Your task to perform on an android device: How do I get to the nearest Sprint Store? Image 0: 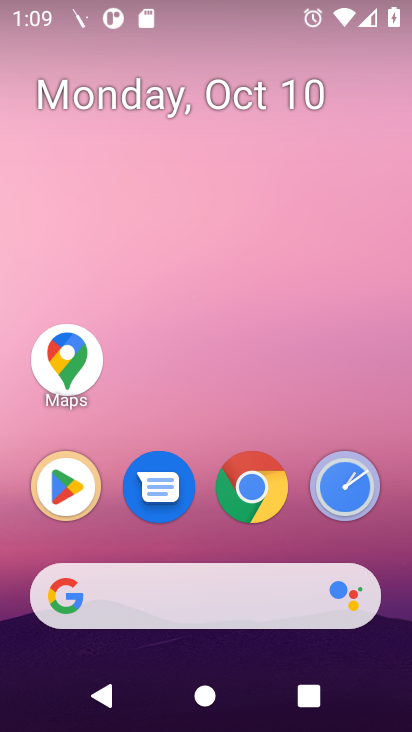
Step 0: drag from (297, 354) to (306, 228)
Your task to perform on an android device: How do I get to the nearest Sprint Store? Image 1: 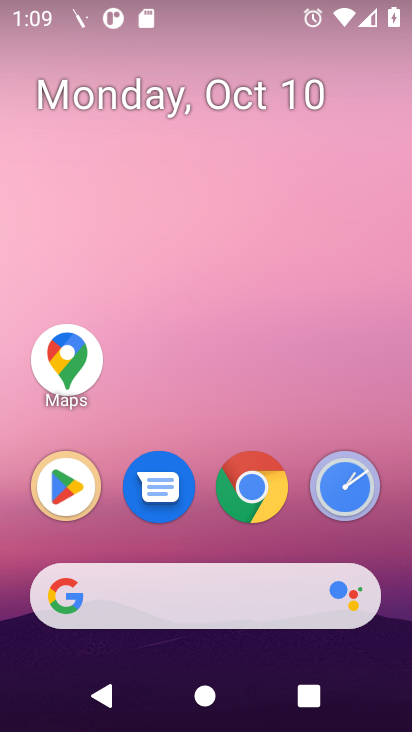
Step 1: click (259, 493)
Your task to perform on an android device: How do I get to the nearest Sprint Store? Image 2: 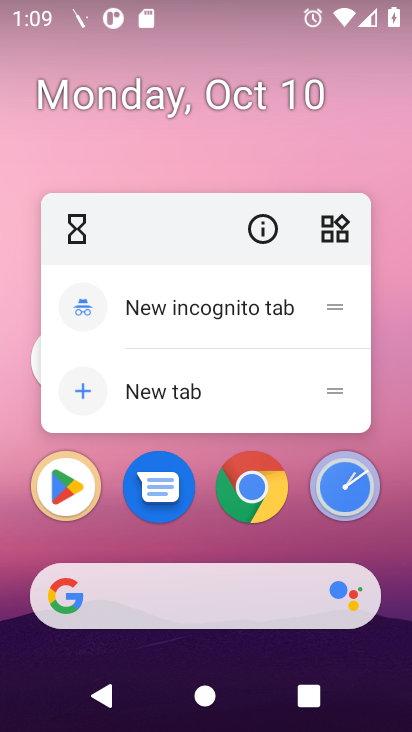
Step 2: click (254, 507)
Your task to perform on an android device: How do I get to the nearest Sprint Store? Image 3: 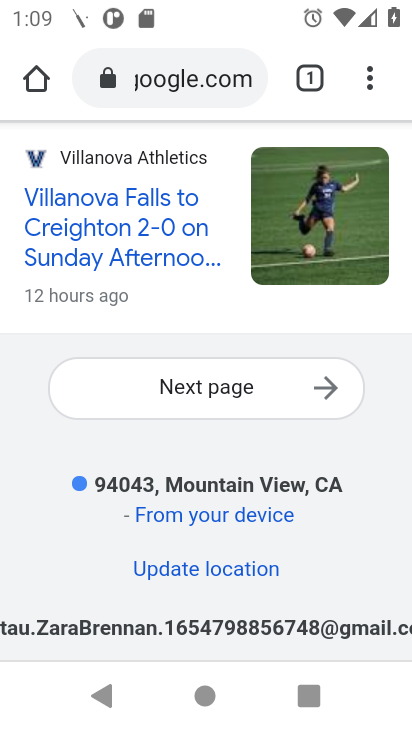
Step 3: click (200, 72)
Your task to perform on an android device: How do I get to the nearest Sprint Store? Image 4: 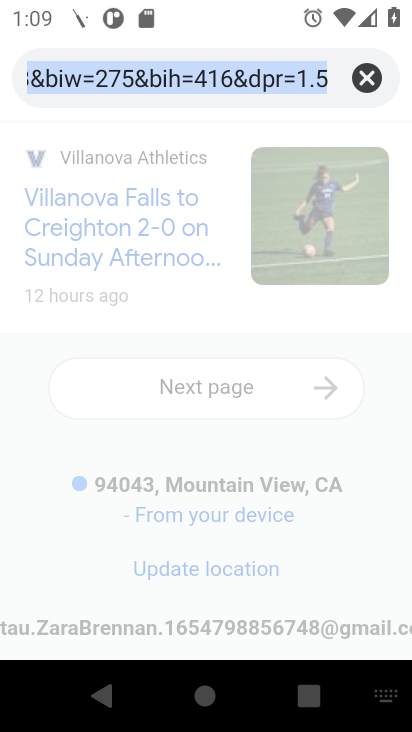
Step 4: type "sprint store"
Your task to perform on an android device: How do I get to the nearest Sprint Store? Image 5: 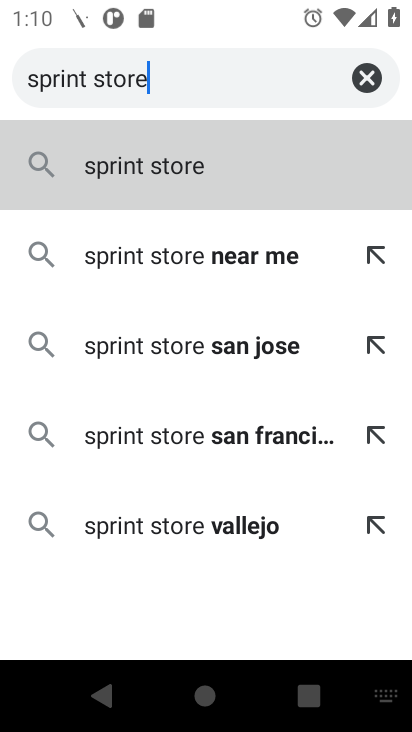
Step 5: click (225, 160)
Your task to perform on an android device: How do I get to the nearest Sprint Store? Image 6: 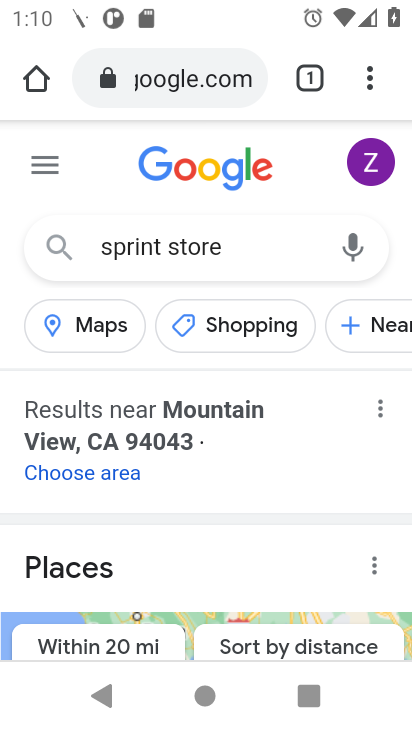
Step 6: drag from (248, 496) to (249, 211)
Your task to perform on an android device: How do I get to the nearest Sprint Store? Image 7: 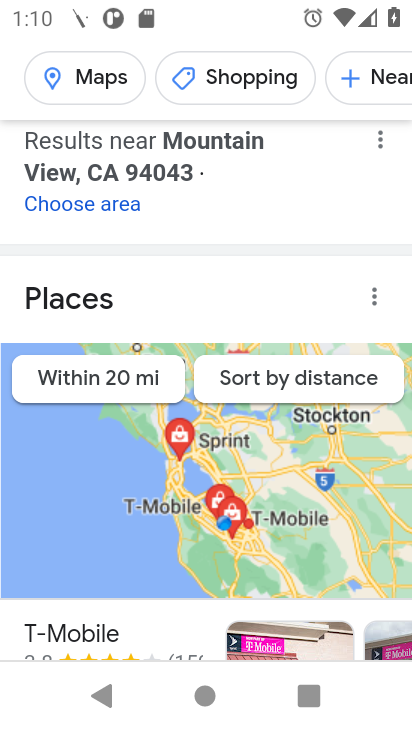
Step 7: drag from (270, 605) to (276, 153)
Your task to perform on an android device: How do I get to the nearest Sprint Store? Image 8: 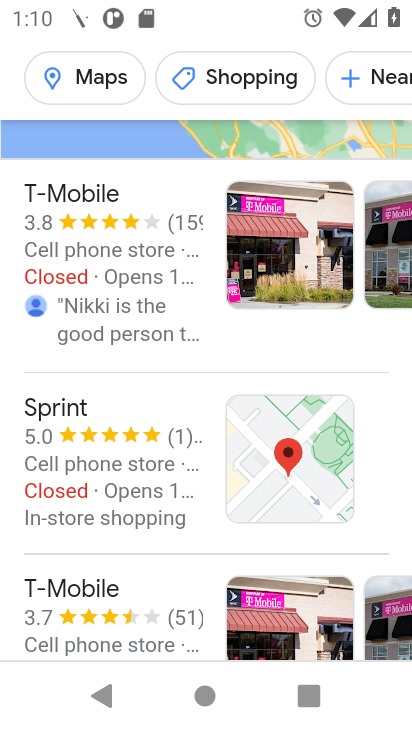
Step 8: drag from (250, 457) to (250, 170)
Your task to perform on an android device: How do I get to the nearest Sprint Store? Image 9: 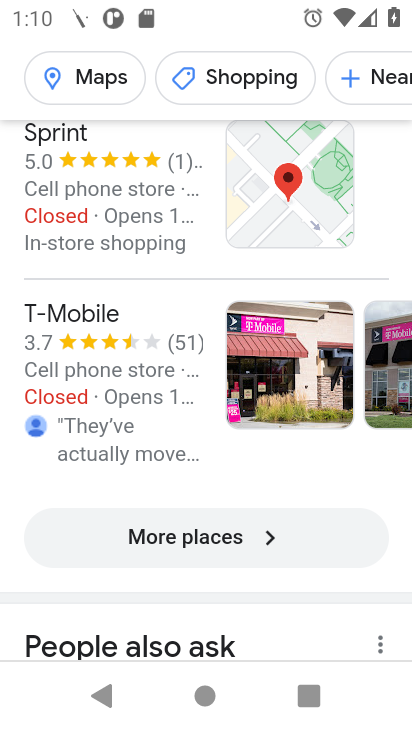
Step 9: drag from (317, 495) to (317, 190)
Your task to perform on an android device: How do I get to the nearest Sprint Store? Image 10: 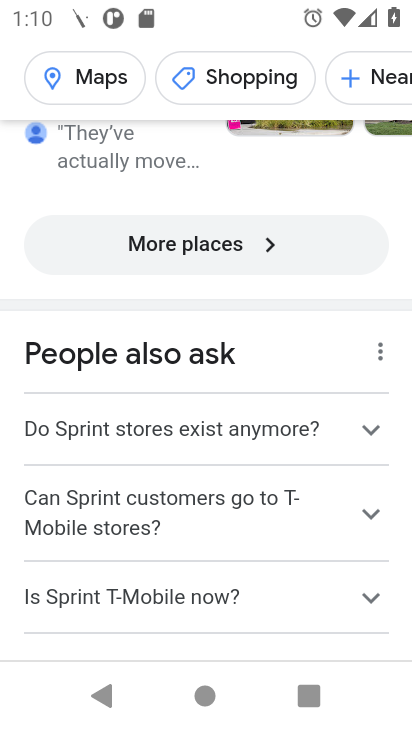
Step 10: drag from (292, 484) to (302, 216)
Your task to perform on an android device: How do I get to the nearest Sprint Store? Image 11: 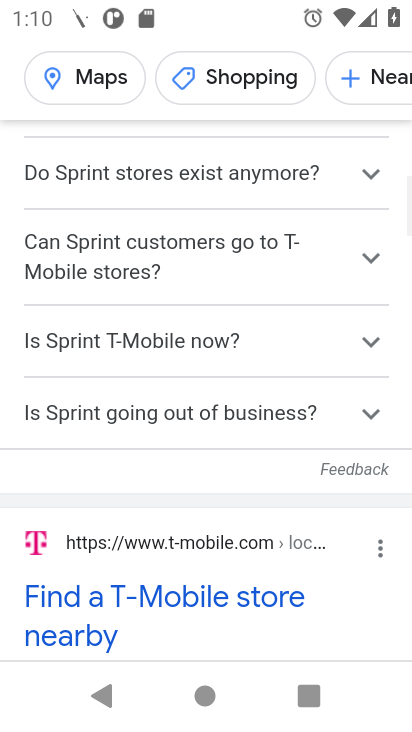
Step 11: drag from (223, 562) to (249, 257)
Your task to perform on an android device: How do I get to the nearest Sprint Store? Image 12: 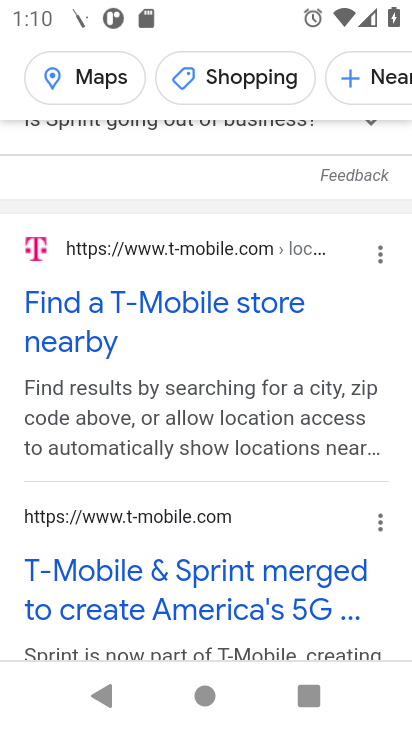
Step 12: drag from (192, 576) to (209, 293)
Your task to perform on an android device: How do I get to the nearest Sprint Store? Image 13: 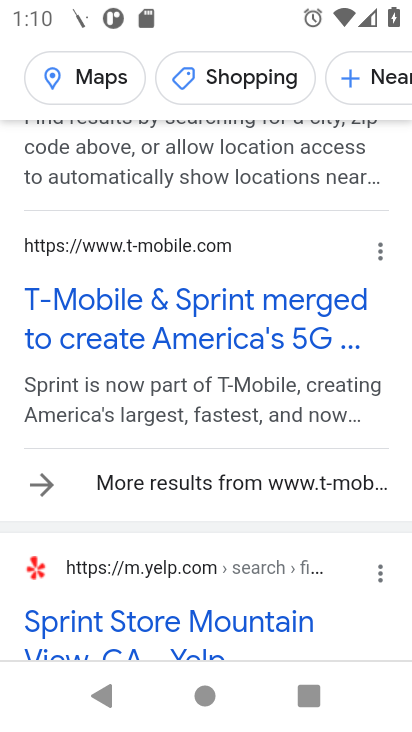
Step 13: drag from (183, 567) to (156, 252)
Your task to perform on an android device: How do I get to the nearest Sprint Store? Image 14: 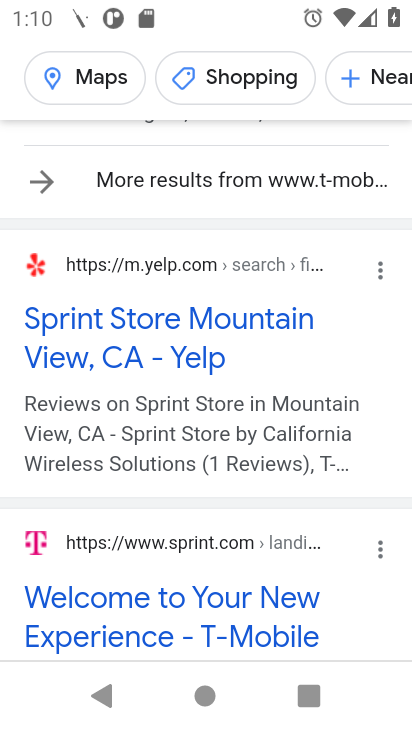
Step 14: drag from (222, 591) to (252, 292)
Your task to perform on an android device: How do I get to the nearest Sprint Store? Image 15: 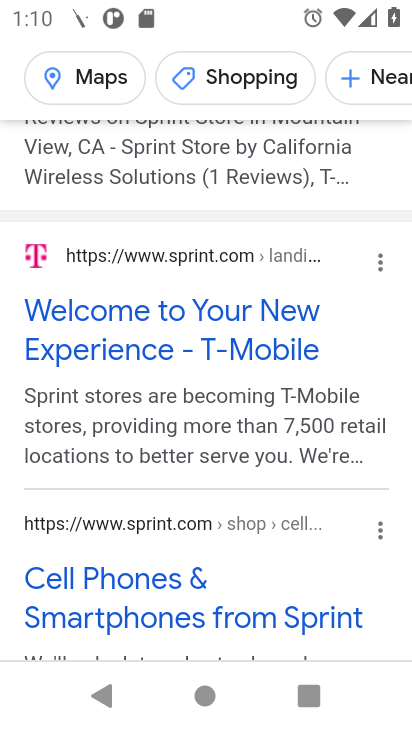
Step 15: click (239, 340)
Your task to perform on an android device: How do I get to the nearest Sprint Store? Image 16: 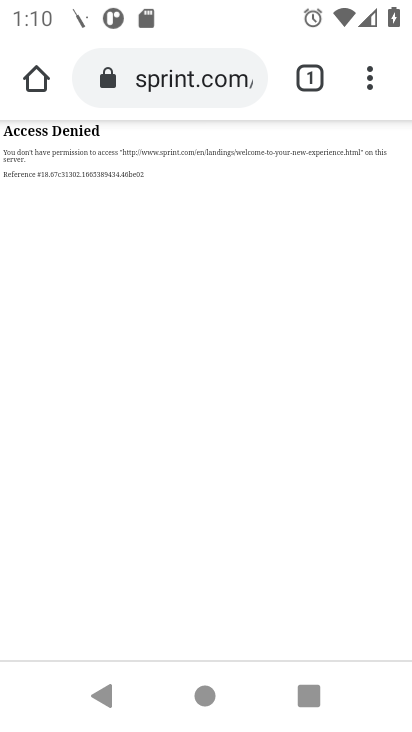
Step 16: task complete